Your task to perform on an android device: change keyboard looks Image 0: 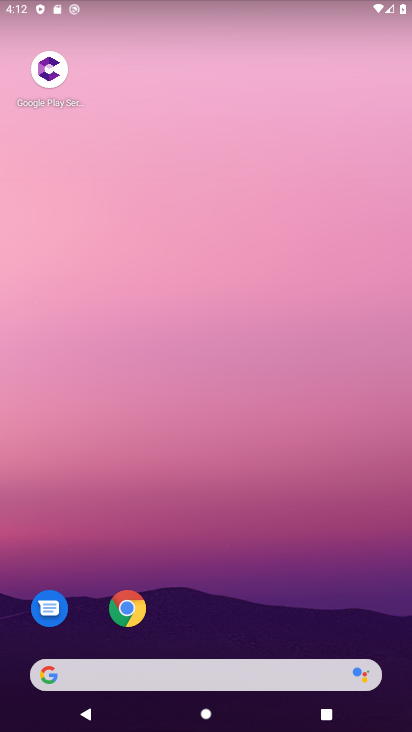
Step 0: drag from (209, 622) to (212, 140)
Your task to perform on an android device: change keyboard looks Image 1: 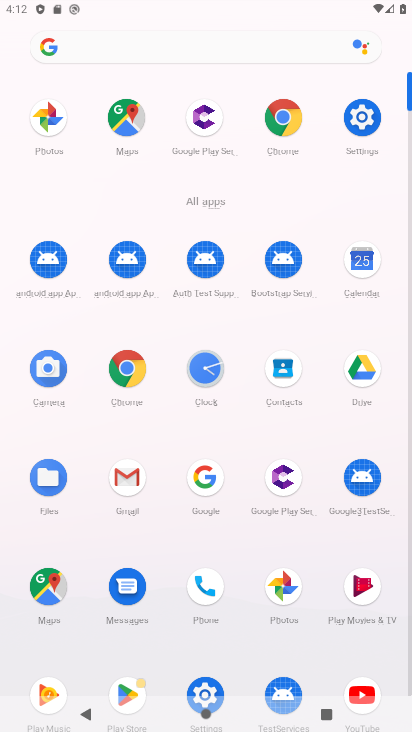
Step 1: click (207, 679)
Your task to perform on an android device: change keyboard looks Image 2: 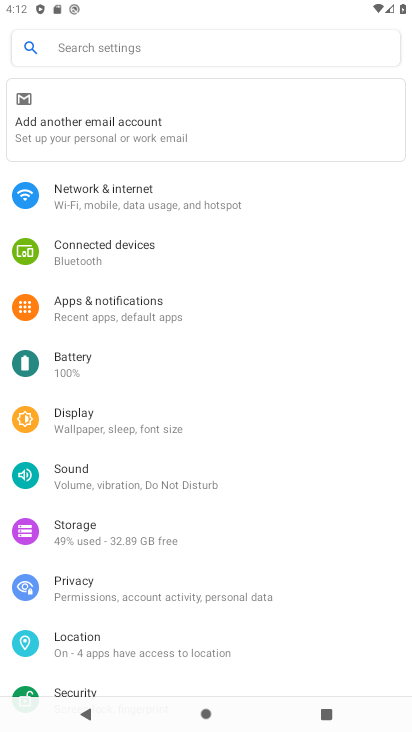
Step 2: drag from (147, 616) to (201, 164)
Your task to perform on an android device: change keyboard looks Image 3: 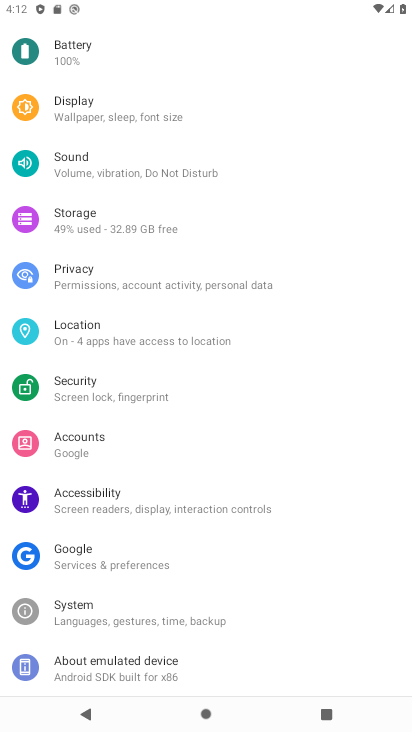
Step 3: click (110, 624)
Your task to perform on an android device: change keyboard looks Image 4: 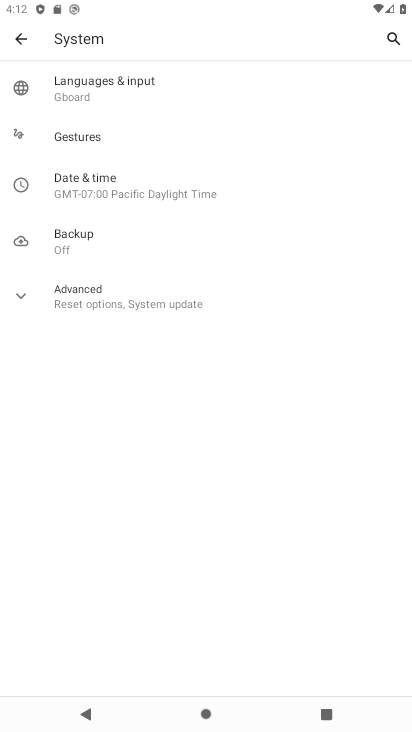
Step 4: click (102, 92)
Your task to perform on an android device: change keyboard looks Image 5: 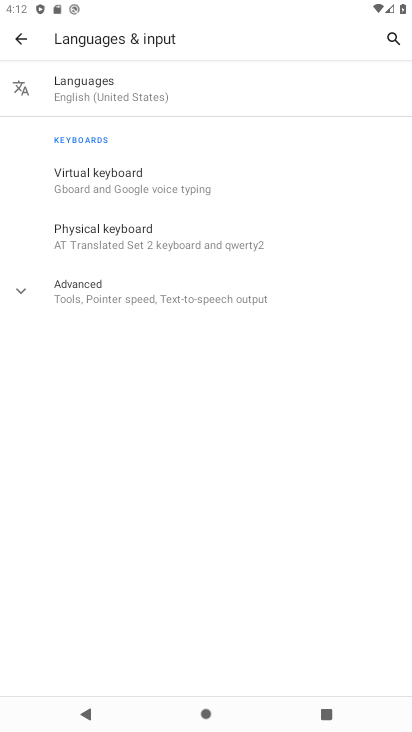
Step 5: click (126, 176)
Your task to perform on an android device: change keyboard looks Image 6: 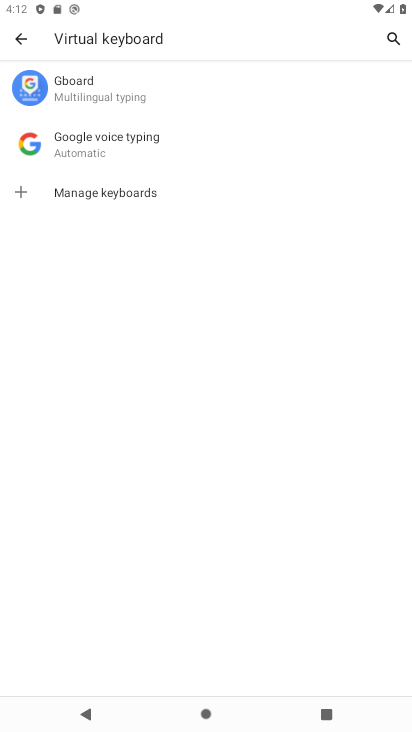
Step 6: click (100, 99)
Your task to perform on an android device: change keyboard looks Image 7: 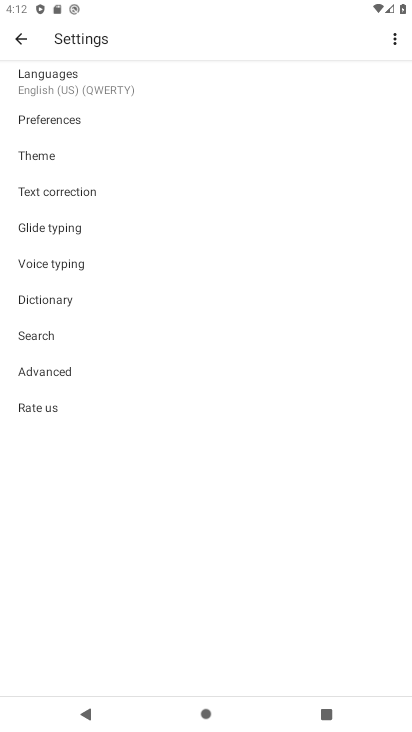
Step 7: click (48, 157)
Your task to perform on an android device: change keyboard looks Image 8: 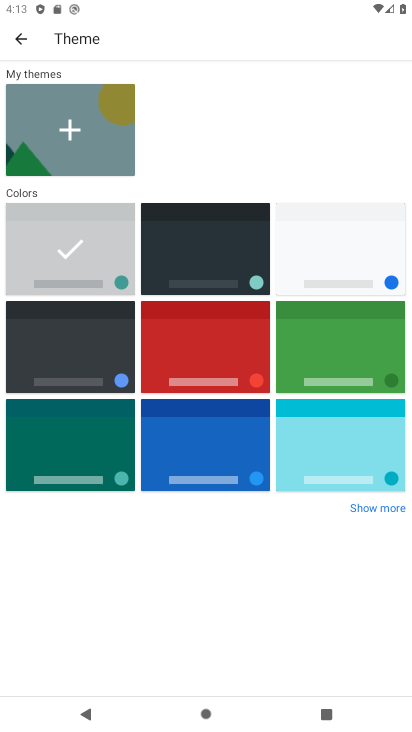
Step 8: click (182, 233)
Your task to perform on an android device: change keyboard looks Image 9: 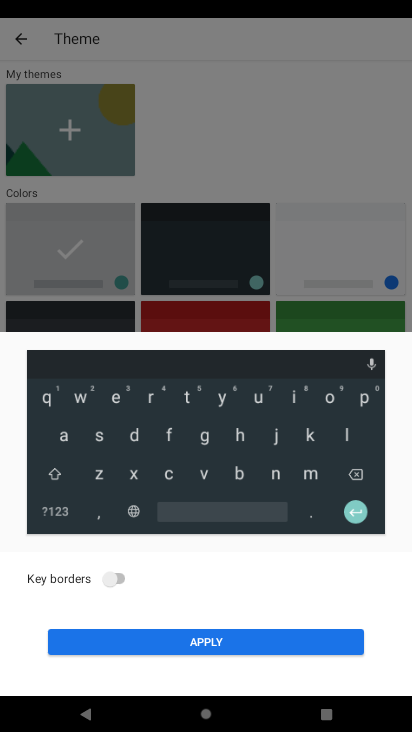
Step 9: click (199, 643)
Your task to perform on an android device: change keyboard looks Image 10: 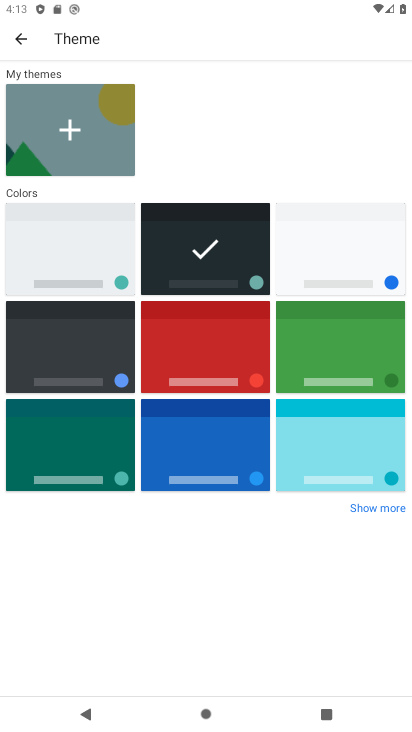
Step 10: task complete